Your task to perform on an android device: change the clock display to digital Image 0: 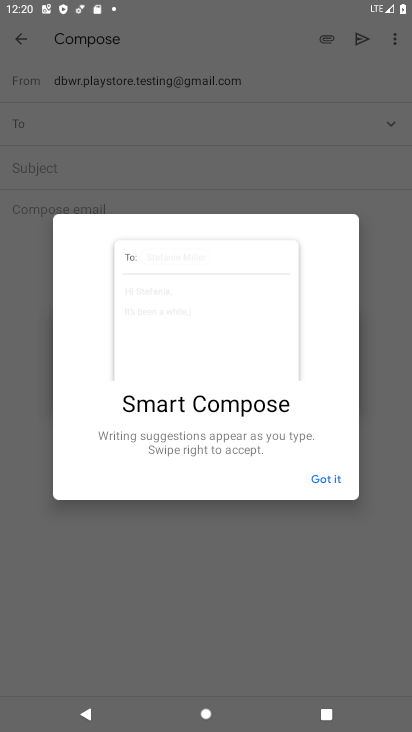
Step 0: press home button
Your task to perform on an android device: change the clock display to digital Image 1: 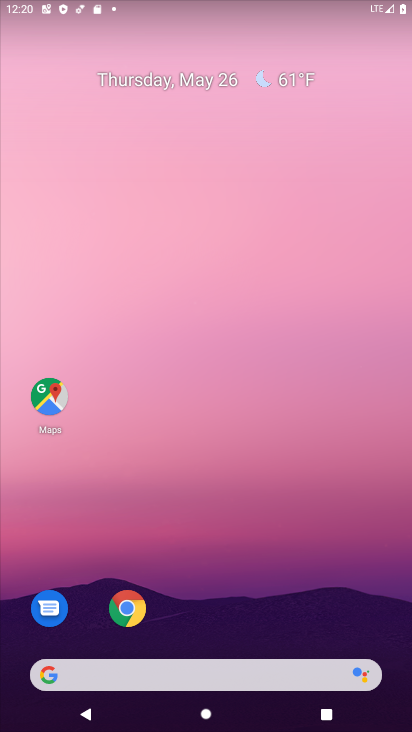
Step 1: drag from (323, 596) to (316, 271)
Your task to perform on an android device: change the clock display to digital Image 2: 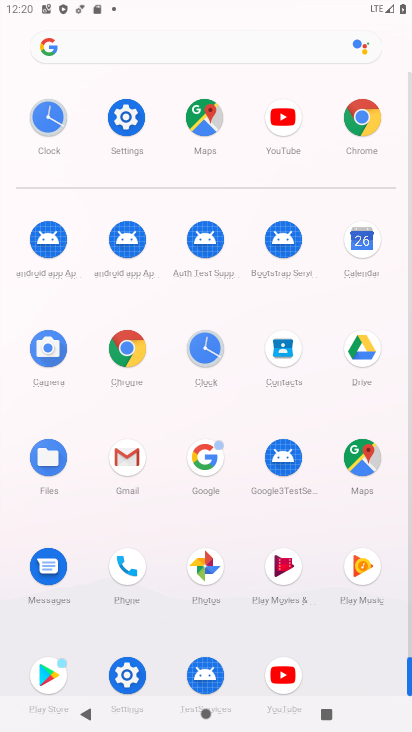
Step 2: click (202, 346)
Your task to perform on an android device: change the clock display to digital Image 3: 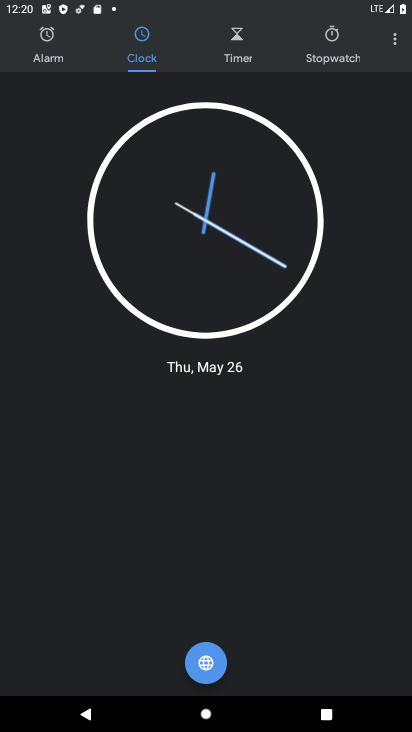
Step 3: click (393, 50)
Your task to perform on an android device: change the clock display to digital Image 4: 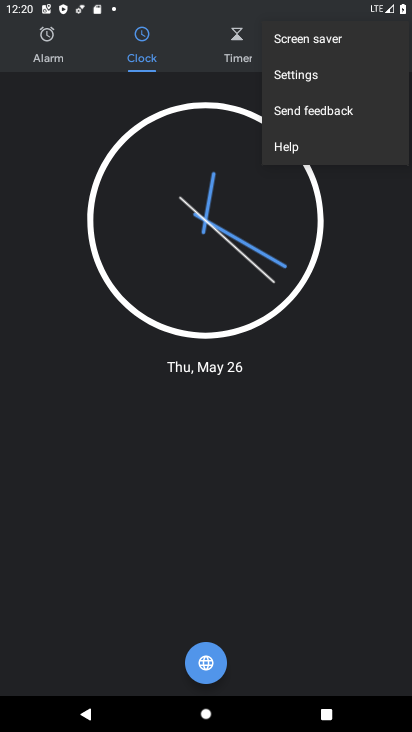
Step 4: click (296, 76)
Your task to perform on an android device: change the clock display to digital Image 5: 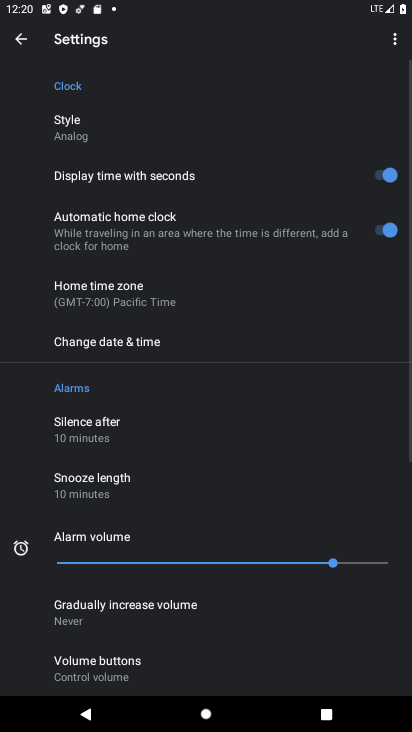
Step 5: click (73, 121)
Your task to perform on an android device: change the clock display to digital Image 6: 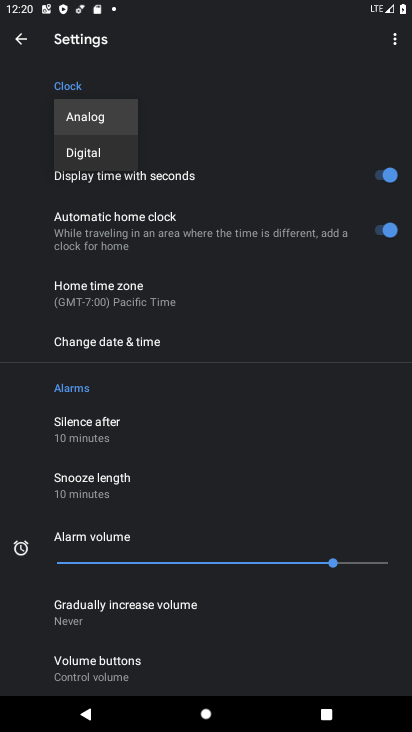
Step 6: click (86, 155)
Your task to perform on an android device: change the clock display to digital Image 7: 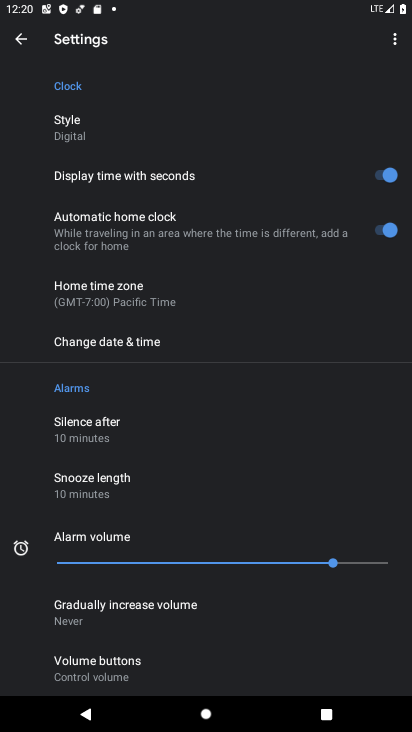
Step 7: task complete